Your task to perform on an android device: clear history in the chrome app Image 0: 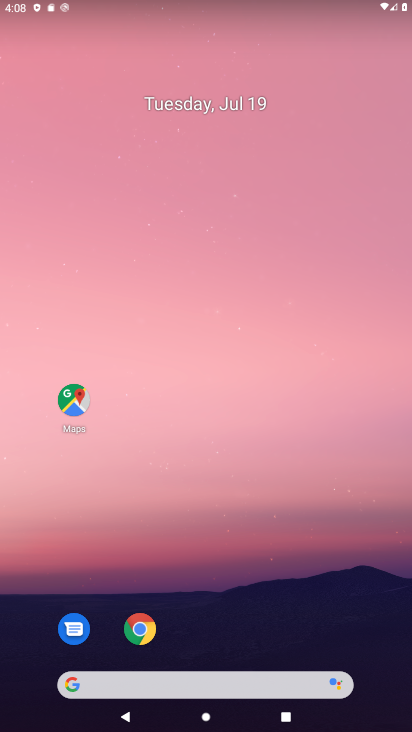
Step 0: click (142, 631)
Your task to perform on an android device: clear history in the chrome app Image 1: 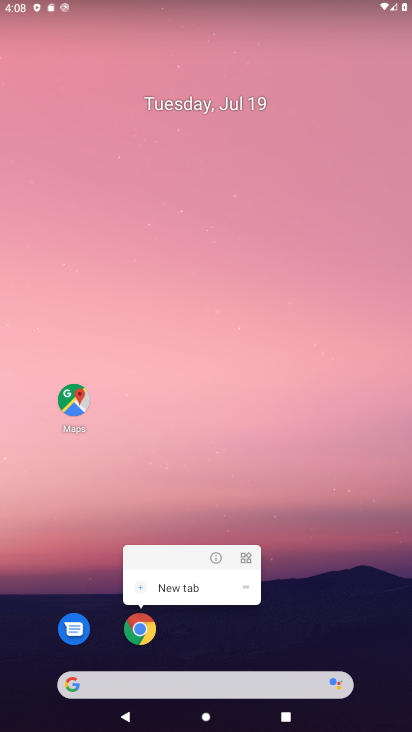
Step 1: click (137, 636)
Your task to perform on an android device: clear history in the chrome app Image 2: 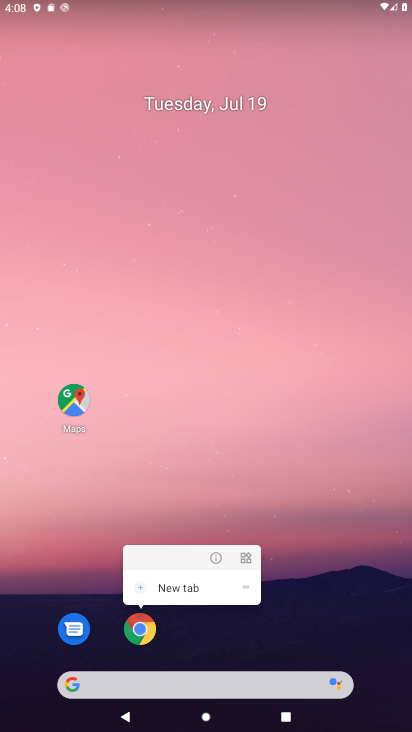
Step 2: click (137, 636)
Your task to perform on an android device: clear history in the chrome app Image 3: 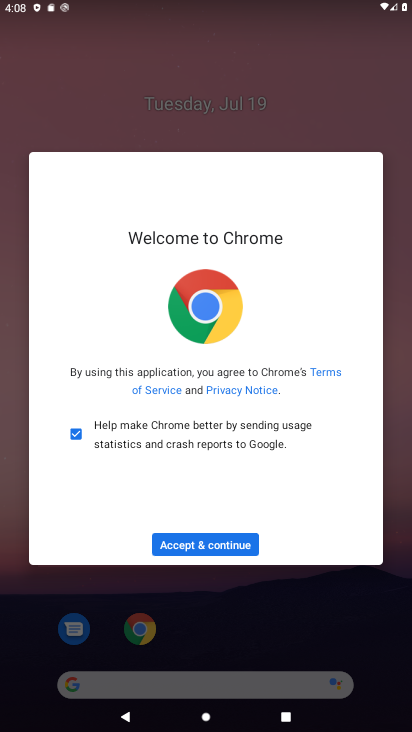
Step 3: click (172, 549)
Your task to perform on an android device: clear history in the chrome app Image 4: 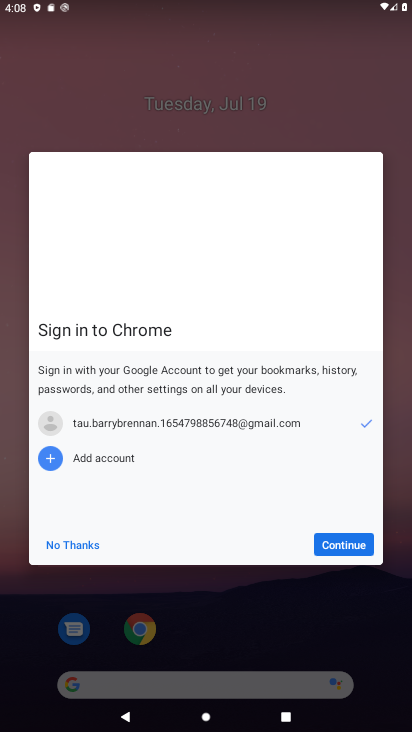
Step 4: click (337, 550)
Your task to perform on an android device: clear history in the chrome app Image 5: 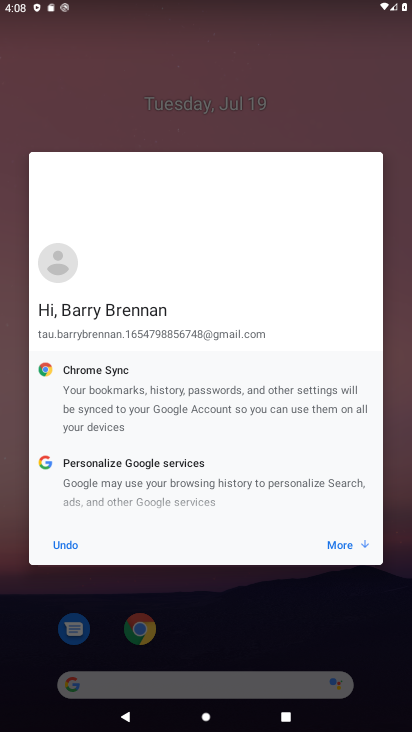
Step 5: click (337, 547)
Your task to perform on an android device: clear history in the chrome app Image 6: 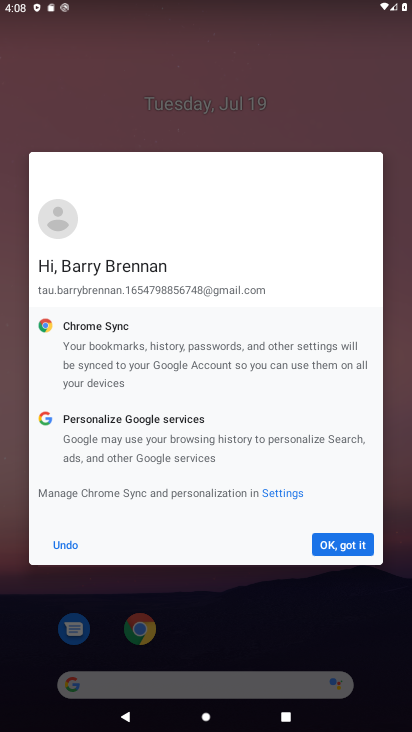
Step 6: click (337, 547)
Your task to perform on an android device: clear history in the chrome app Image 7: 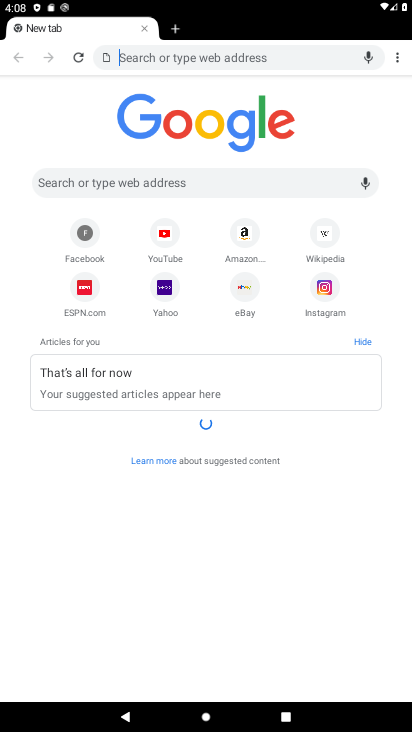
Step 7: task complete